Your task to perform on an android device: open app "Google Find My Device" (install if not already installed) Image 0: 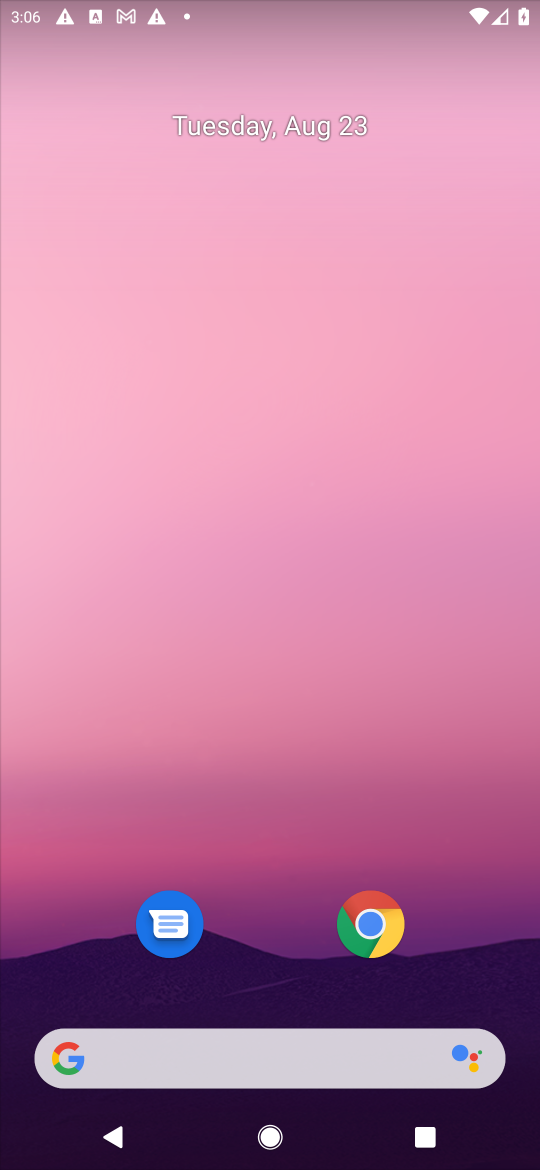
Step 0: press home button
Your task to perform on an android device: open app "Google Find My Device" (install if not already installed) Image 1: 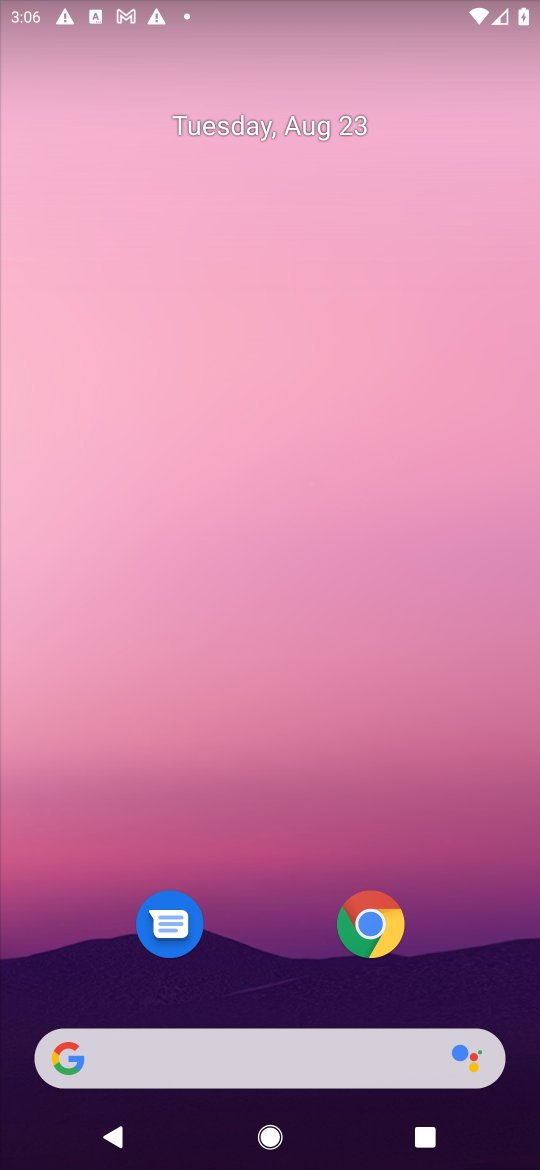
Step 1: drag from (457, 981) to (483, 204)
Your task to perform on an android device: open app "Google Find My Device" (install if not already installed) Image 2: 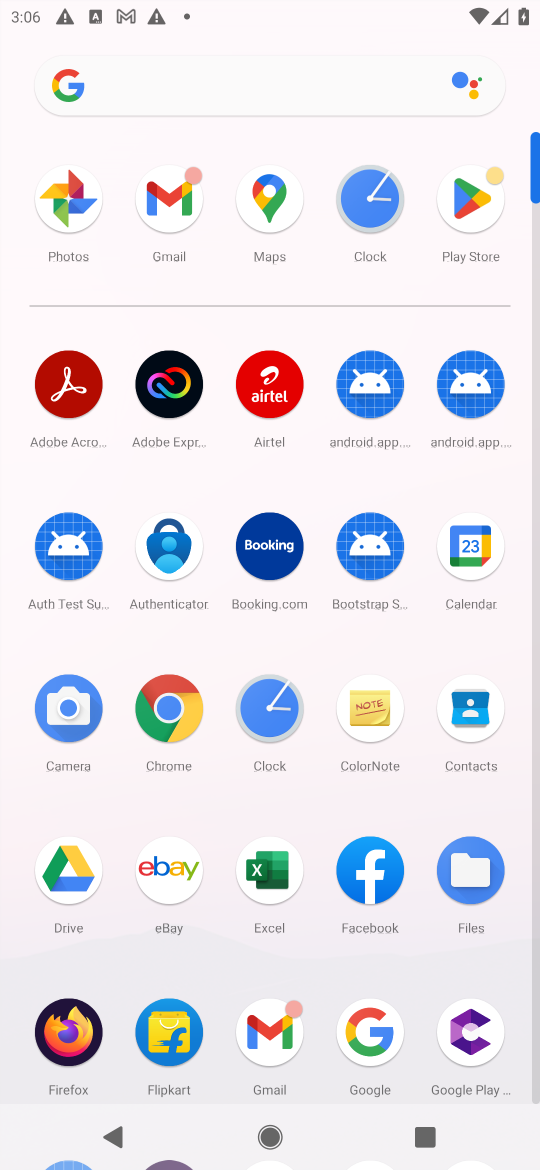
Step 2: click (468, 197)
Your task to perform on an android device: open app "Google Find My Device" (install if not already installed) Image 3: 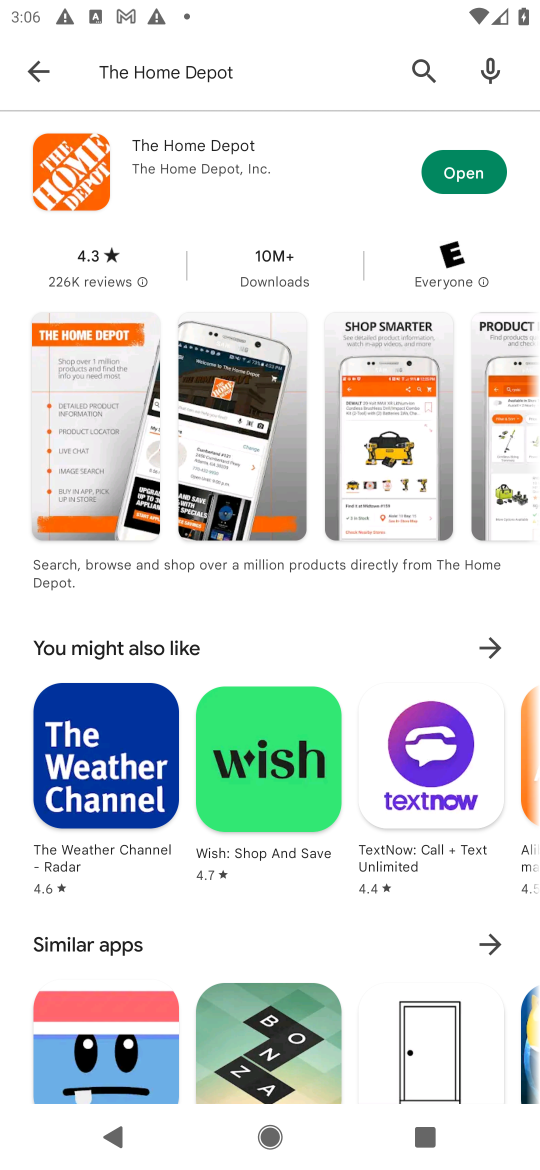
Step 3: press back button
Your task to perform on an android device: open app "Google Find My Device" (install if not already installed) Image 4: 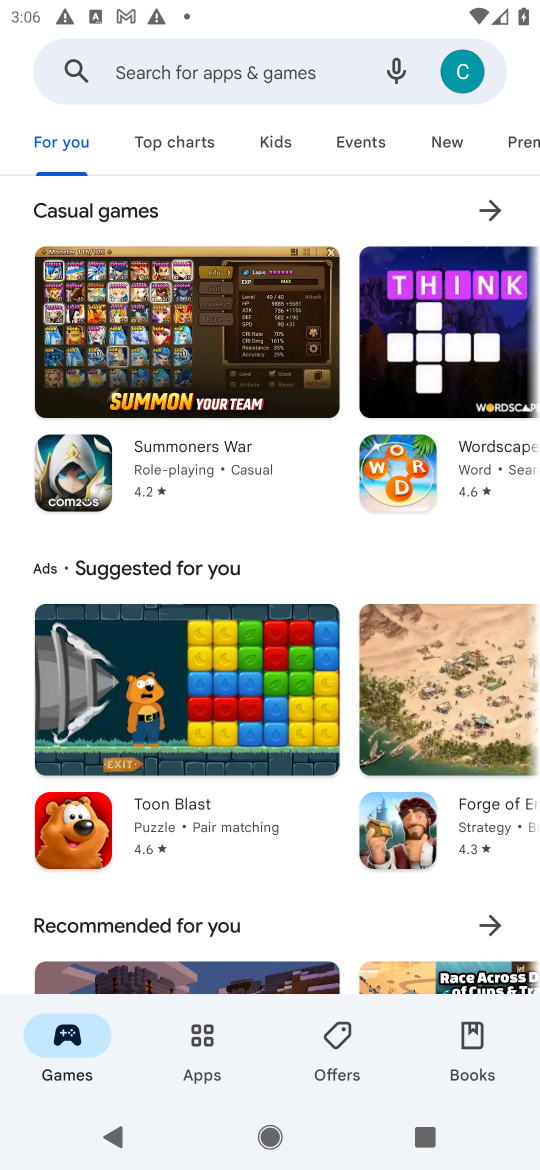
Step 4: click (273, 68)
Your task to perform on an android device: open app "Google Find My Device" (install if not already installed) Image 5: 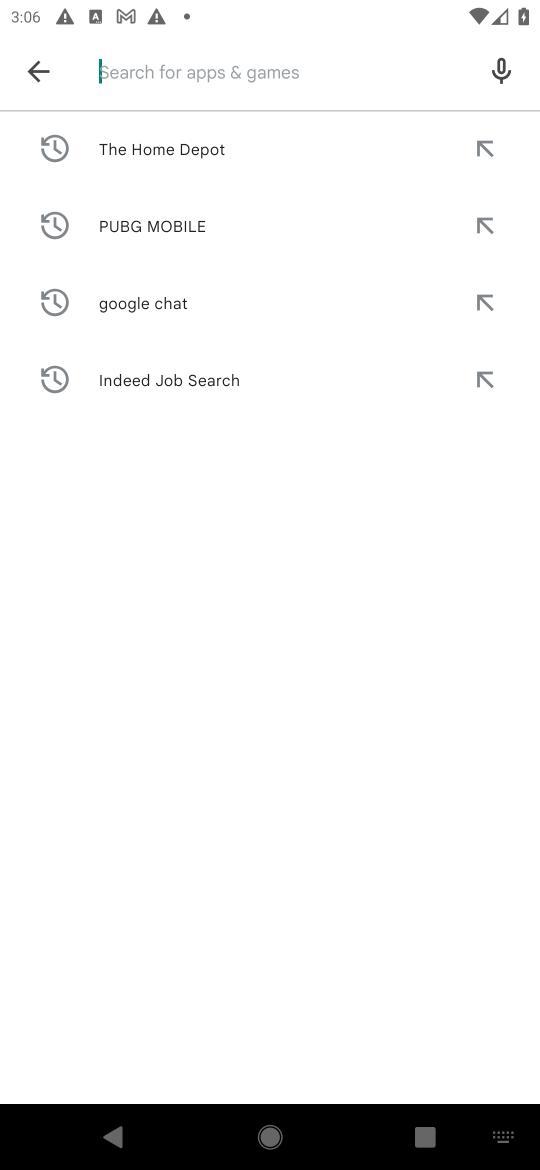
Step 5: press enter
Your task to perform on an android device: open app "Google Find My Device" (install if not already installed) Image 6: 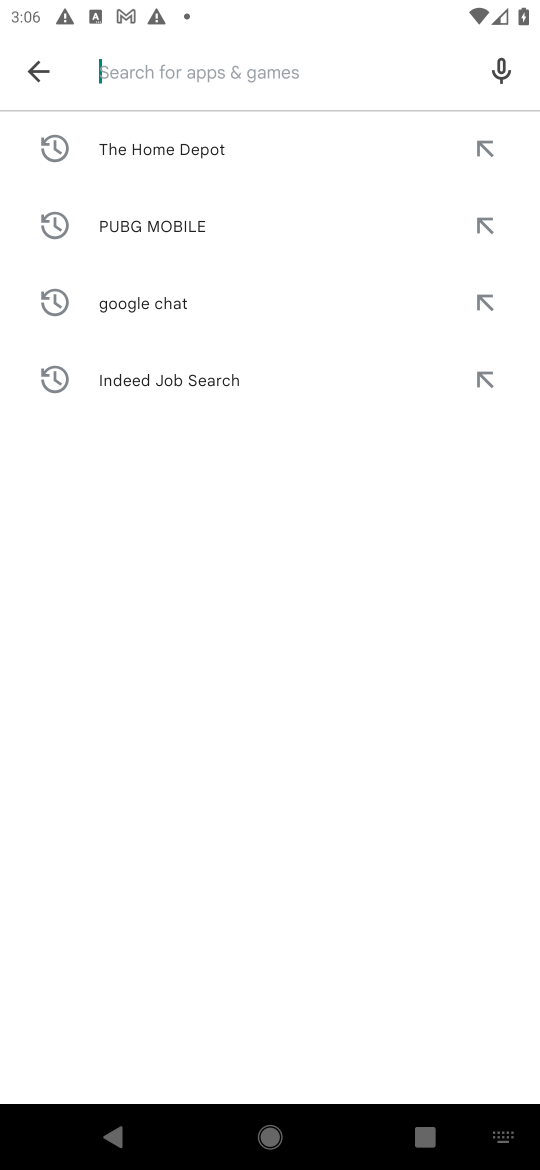
Step 6: type "Google Find My Device"
Your task to perform on an android device: open app "Google Find My Device" (install if not already installed) Image 7: 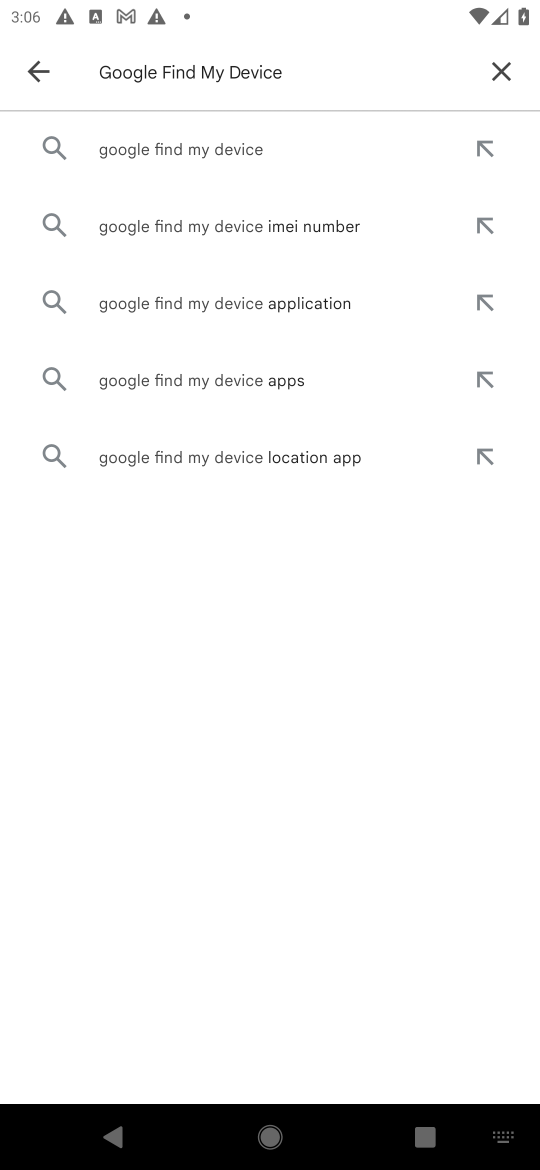
Step 7: click (230, 149)
Your task to perform on an android device: open app "Google Find My Device" (install if not already installed) Image 8: 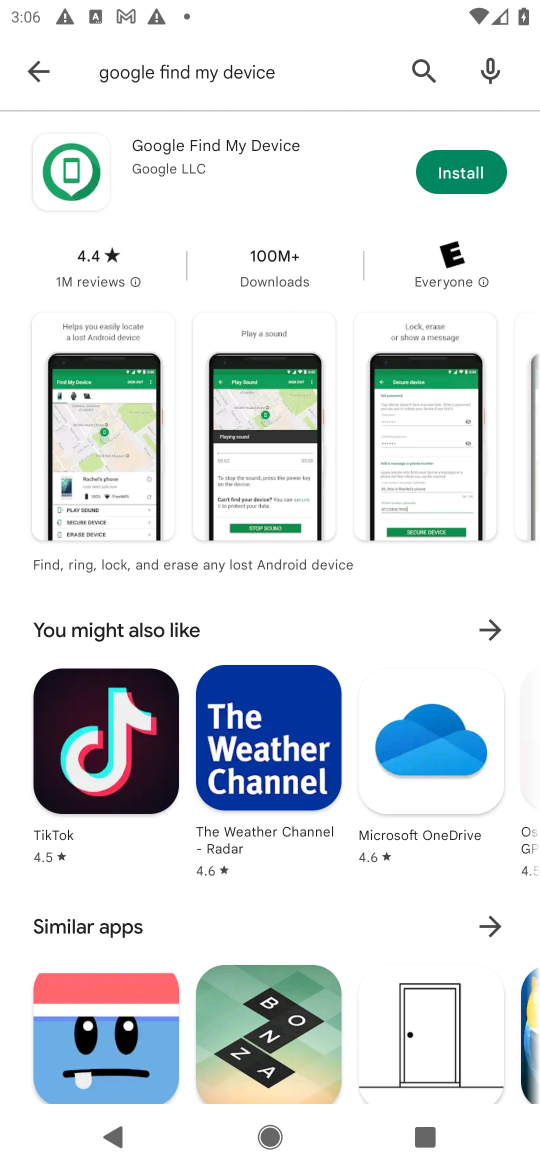
Step 8: click (457, 166)
Your task to perform on an android device: open app "Google Find My Device" (install if not already installed) Image 9: 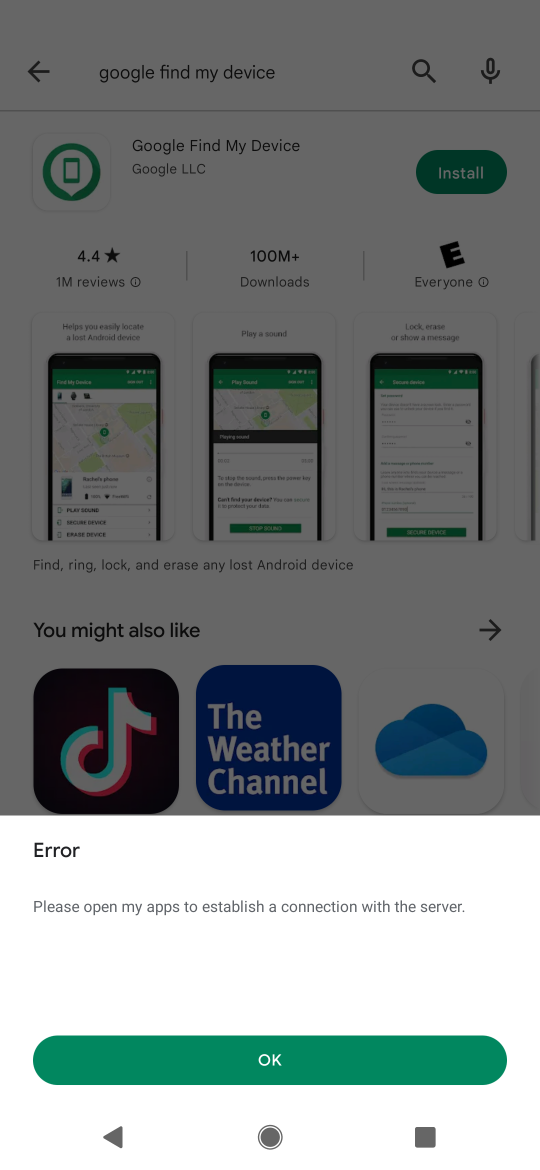
Step 9: task complete